Your task to perform on an android device: Open accessibility settings Image 0: 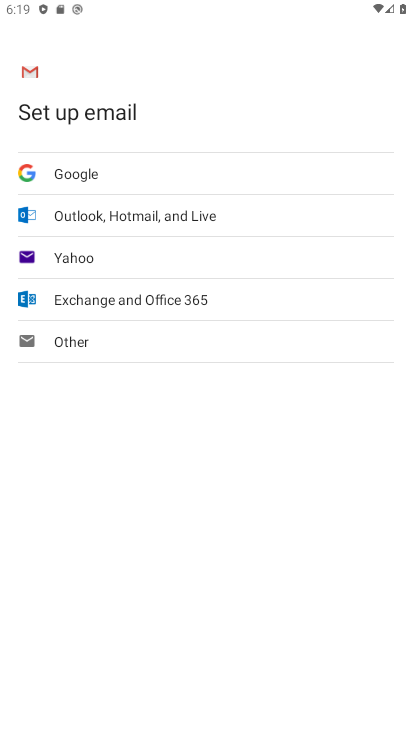
Step 0: press home button
Your task to perform on an android device: Open accessibility settings Image 1: 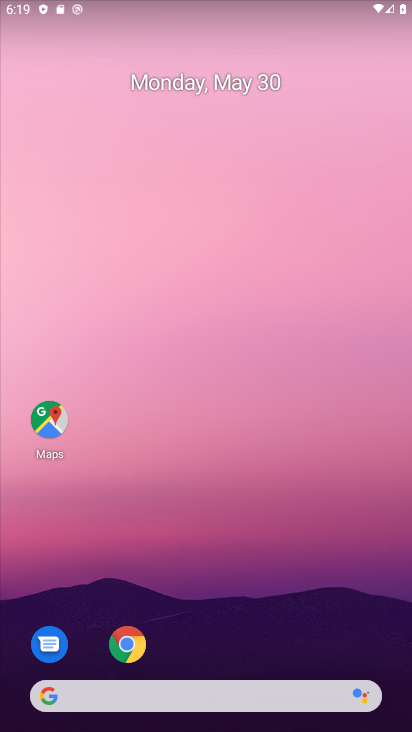
Step 1: drag from (256, 636) to (320, 64)
Your task to perform on an android device: Open accessibility settings Image 2: 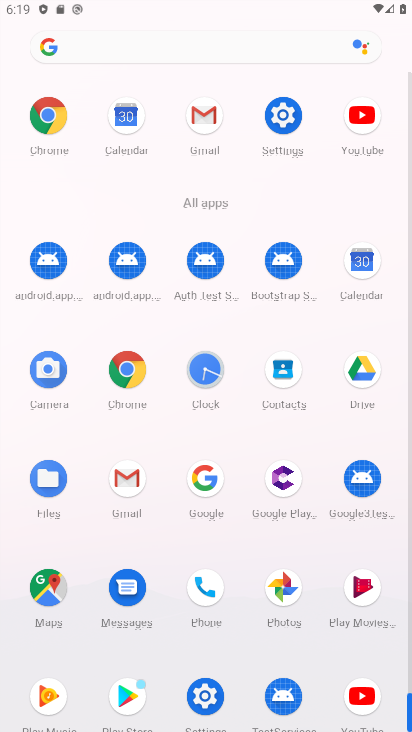
Step 2: click (279, 153)
Your task to perform on an android device: Open accessibility settings Image 3: 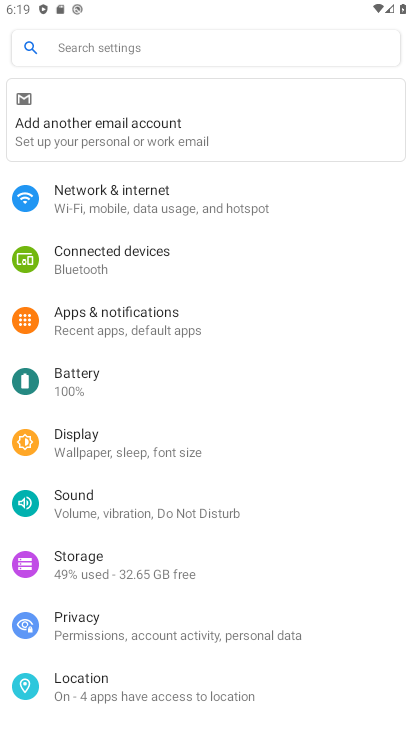
Step 3: drag from (137, 648) to (170, 138)
Your task to perform on an android device: Open accessibility settings Image 4: 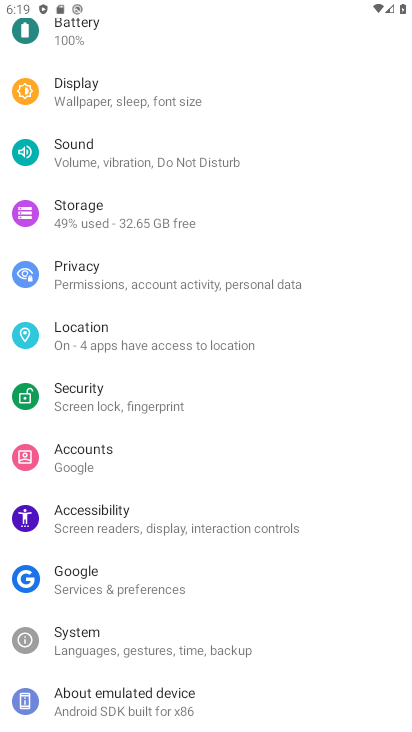
Step 4: click (110, 534)
Your task to perform on an android device: Open accessibility settings Image 5: 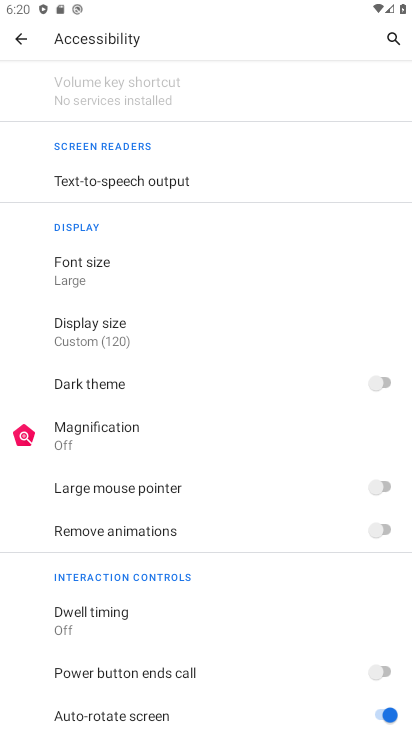
Step 5: task complete